Your task to perform on an android device: toggle location history Image 0: 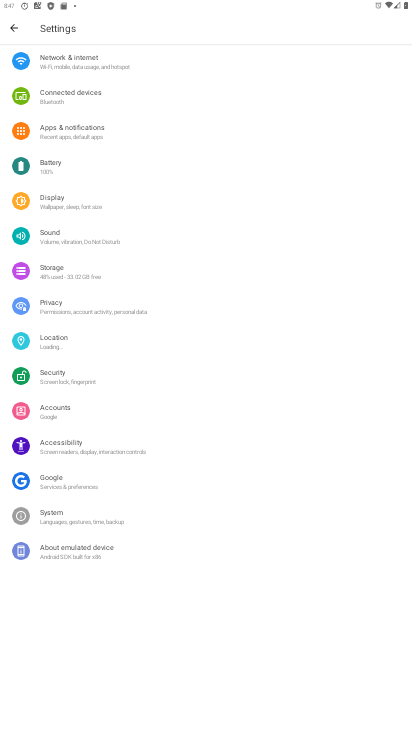
Step 0: press home button
Your task to perform on an android device: toggle location history Image 1: 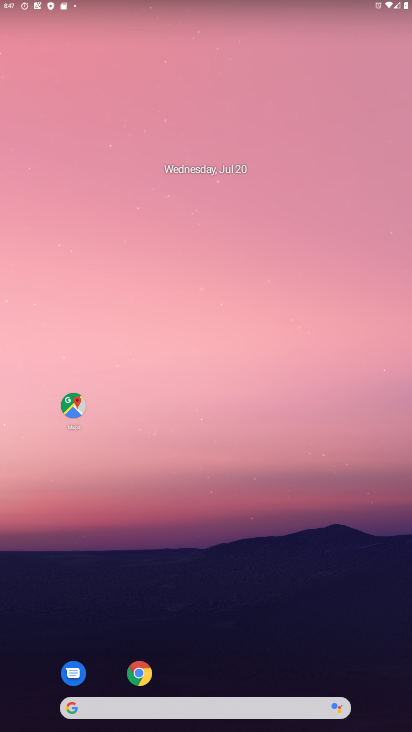
Step 1: drag from (185, 672) to (226, 118)
Your task to perform on an android device: toggle location history Image 2: 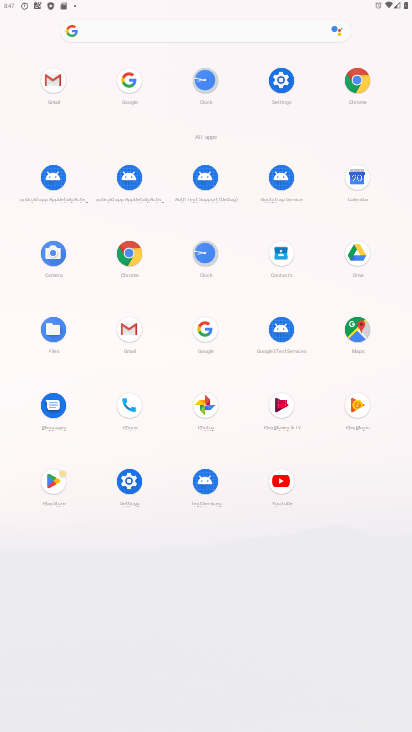
Step 2: click (279, 79)
Your task to perform on an android device: toggle location history Image 3: 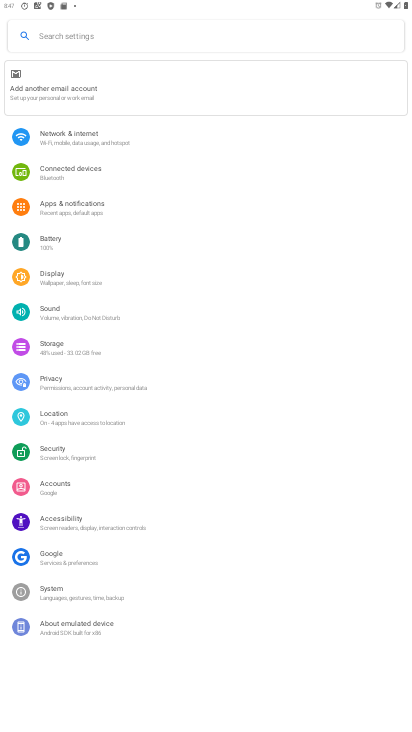
Step 3: click (80, 415)
Your task to perform on an android device: toggle location history Image 4: 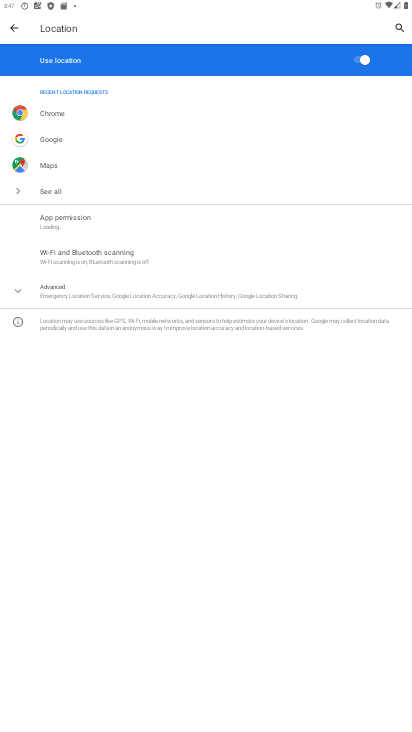
Step 4: click (60, 293)
Your task to perform on an android device: toggle location history Image 5: 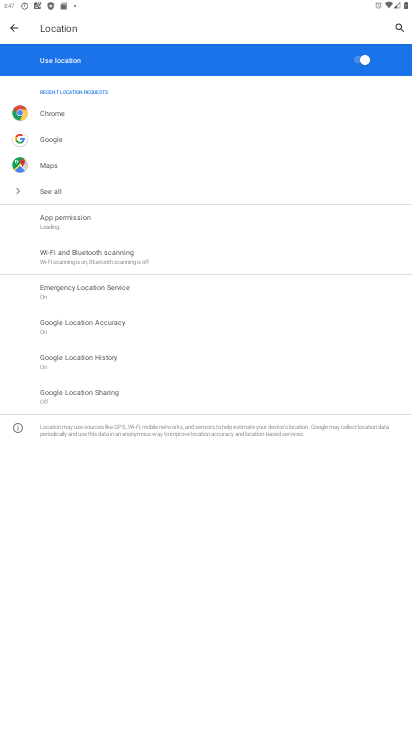
Step 5: click (87, 351)
Your task to perform on an android device: toggle location history Image 6: 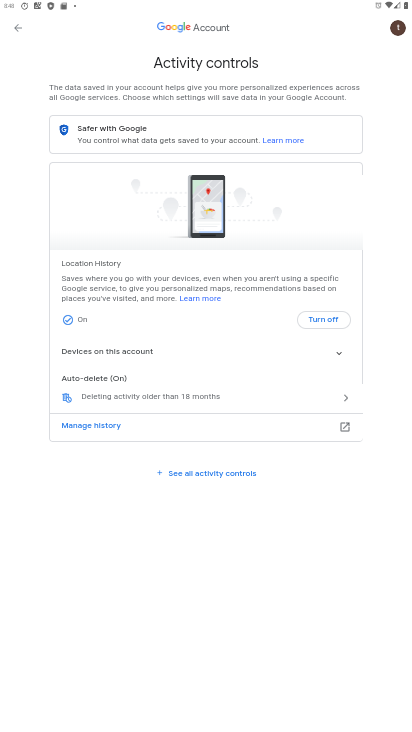
Step 6: click (321, 314)
Your task to perform on an android device: toggle location history Image 7: 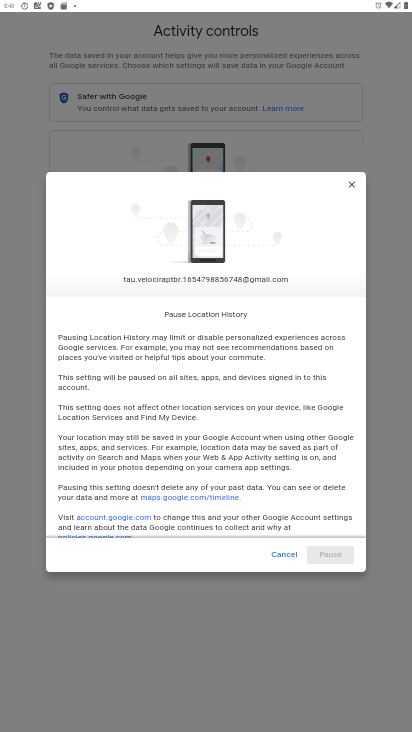
Step 7: drag from (360, 457) to (338, 201)
Your task to perform on an android device: toggle location history Image 8: 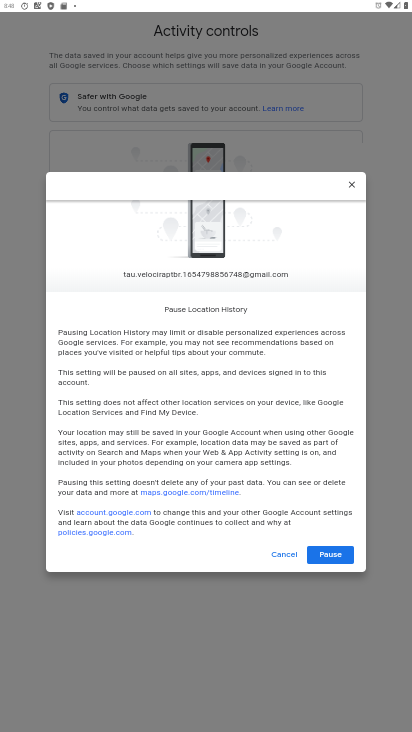
Step 8: click (329, 558)
Your task to perform on an android device: toggle location history Image 9: 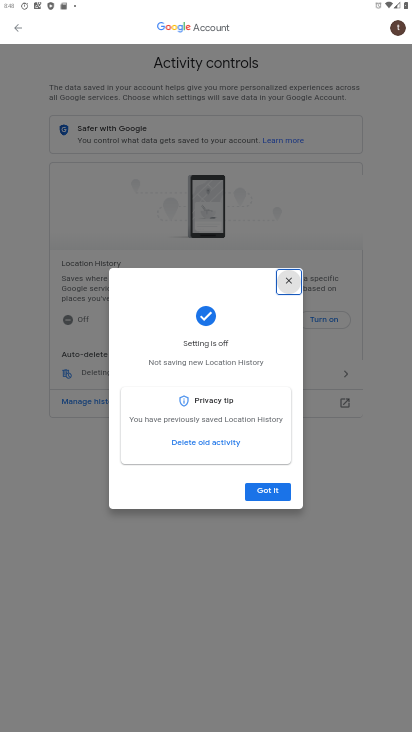
Step 9: click (271, 490)
Your task to perform on an android device: toggle location history Image 10: 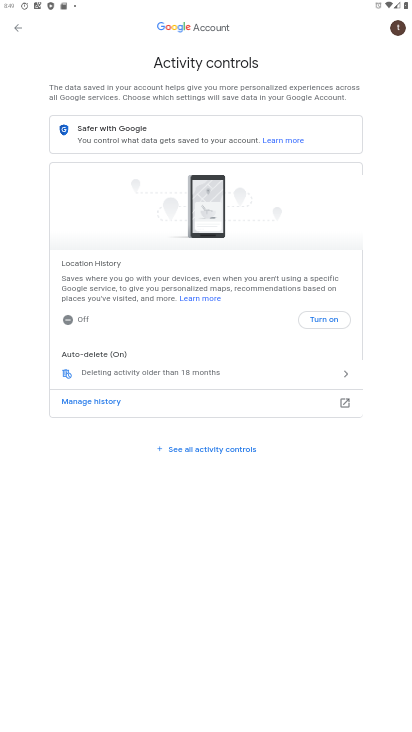
Step 10: task complete